Your task to perform on an android device: toggle sleep mode Image 0: 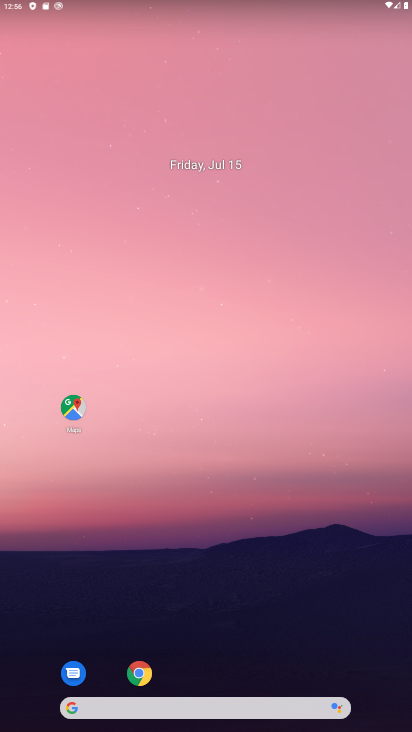
Step 0: drag from (246, 554) to (203, 195)
Your task to perform on an android device: toggle sleep mode Image 1: 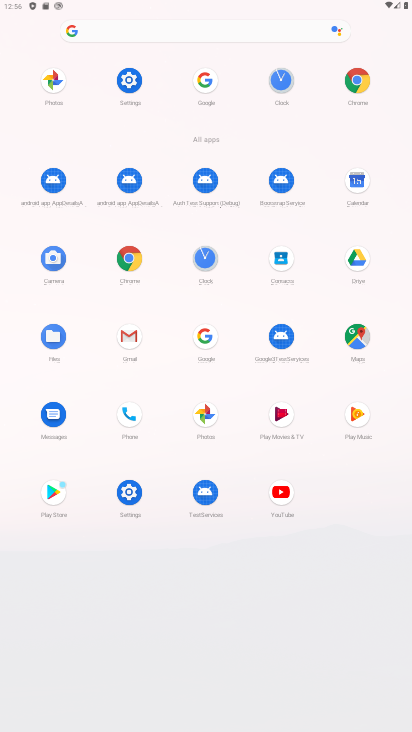
Step 1: click (123, 86)
Your task to perform on an android device: toggle sleep mode Image 2: 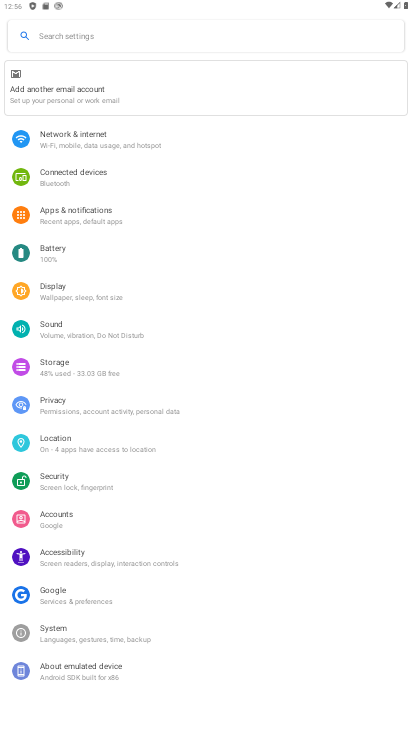
Step 2: click (68, 288)
Your task to perform on an android device: toggle sleep mode Image 3: 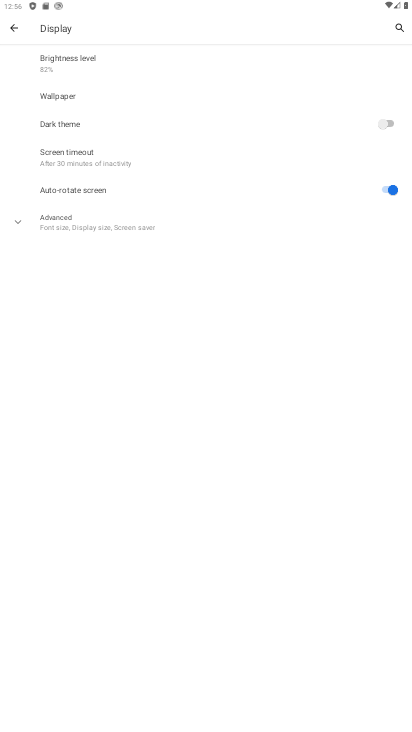
Step 3: click (56, 156)
Your task to perform on an android device: toggle sleep mode Image 4: 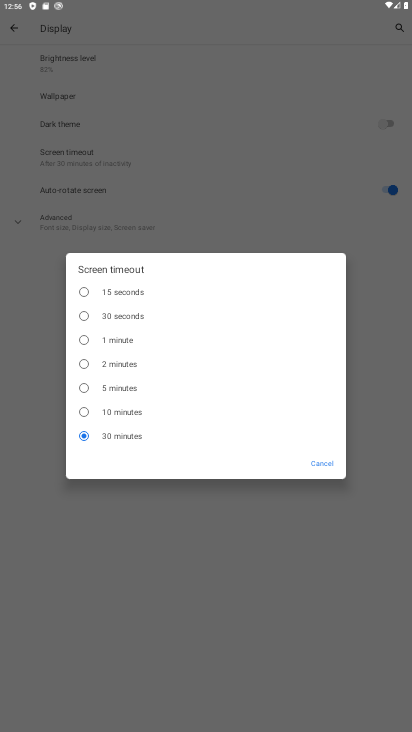
Step 4: click (112, 363)
Your task to perform on an android device: toggle sleep mode Image 5: 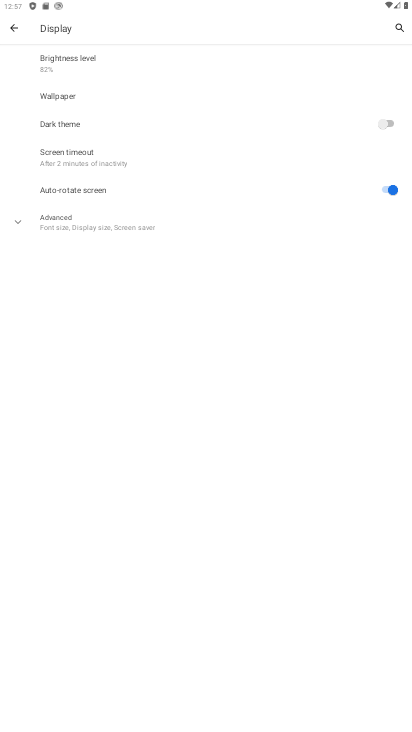
Step 5: task complete